Your task to perform on an android device: turn off priority inbox in the gmail app Image 0: 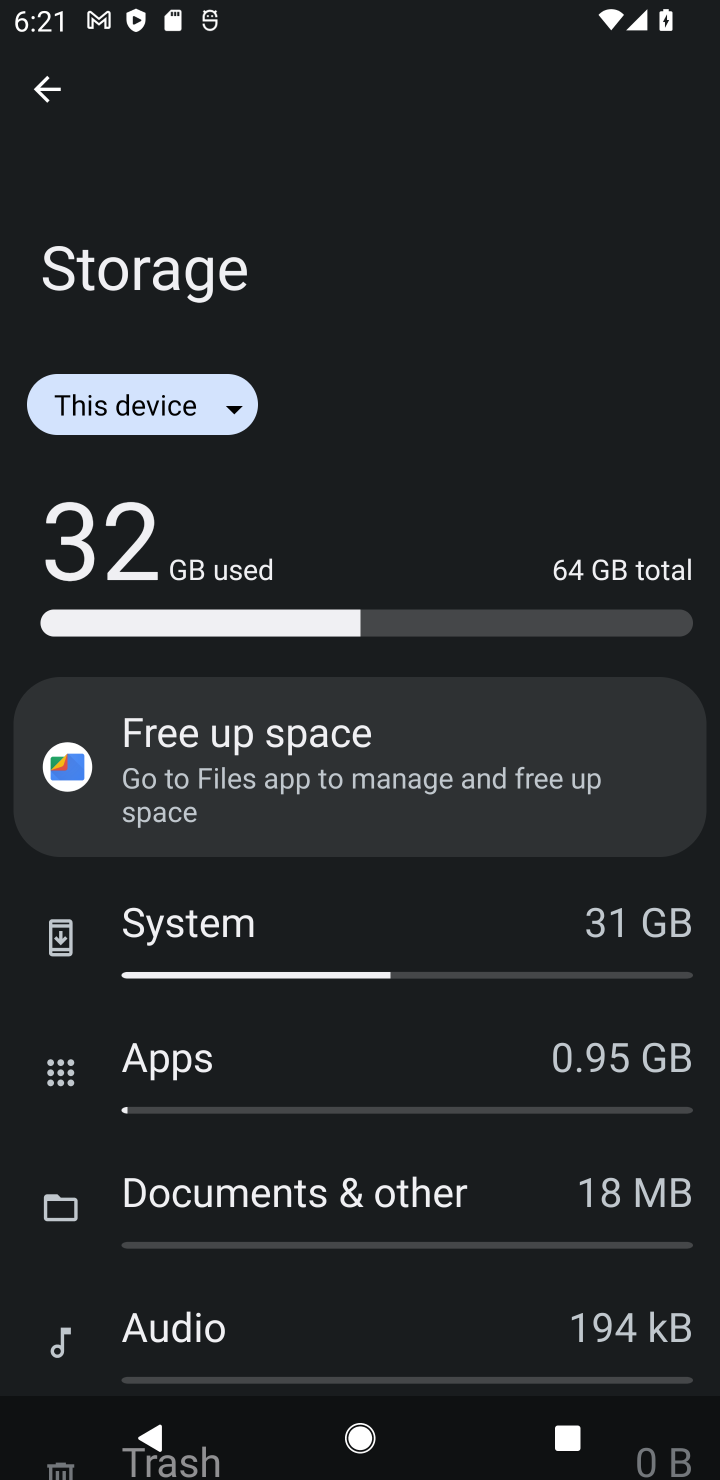
Step 0: press home button
Your task to perform on an android device: turn off priority inbox in the gmail app Image 1: 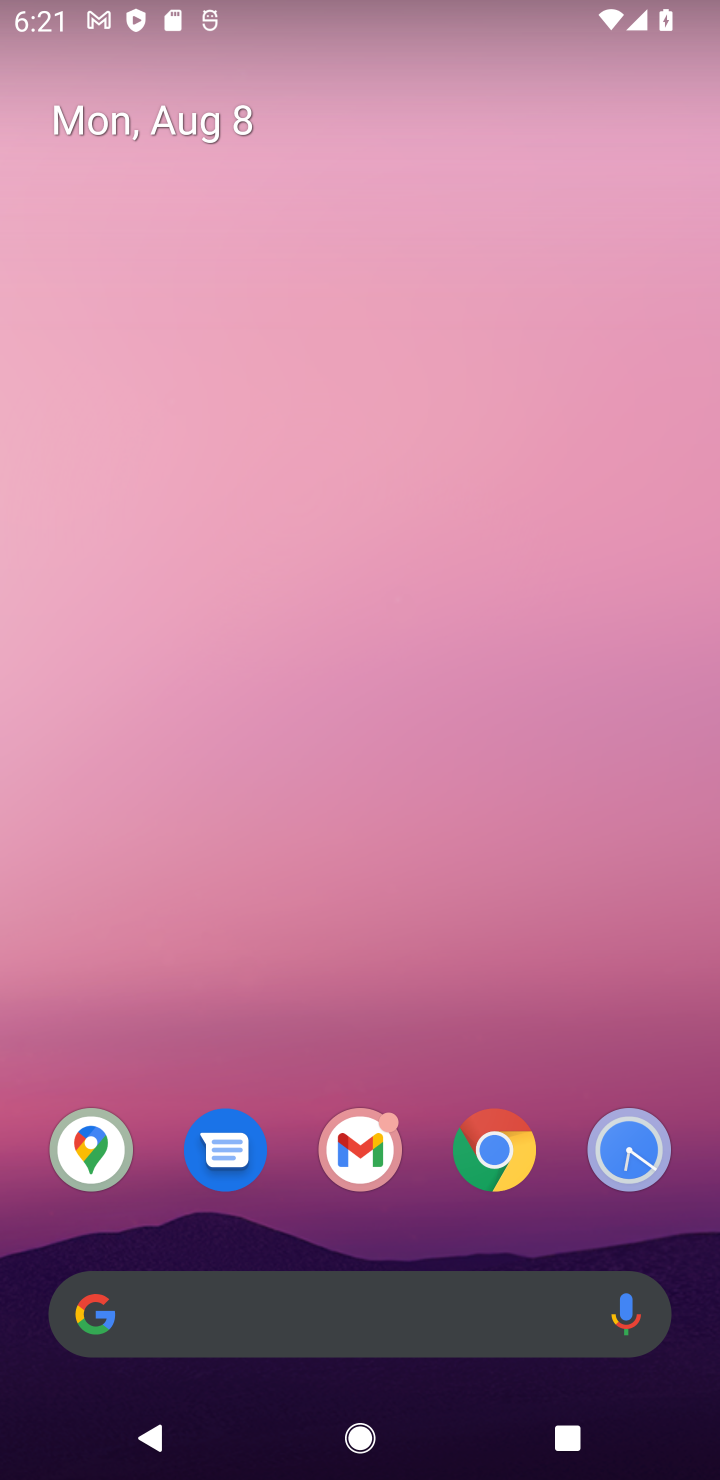
Step 1: click (370, 1183)
Your task to perform on an android device: turn off priority inbox in the gmail app Image 2: 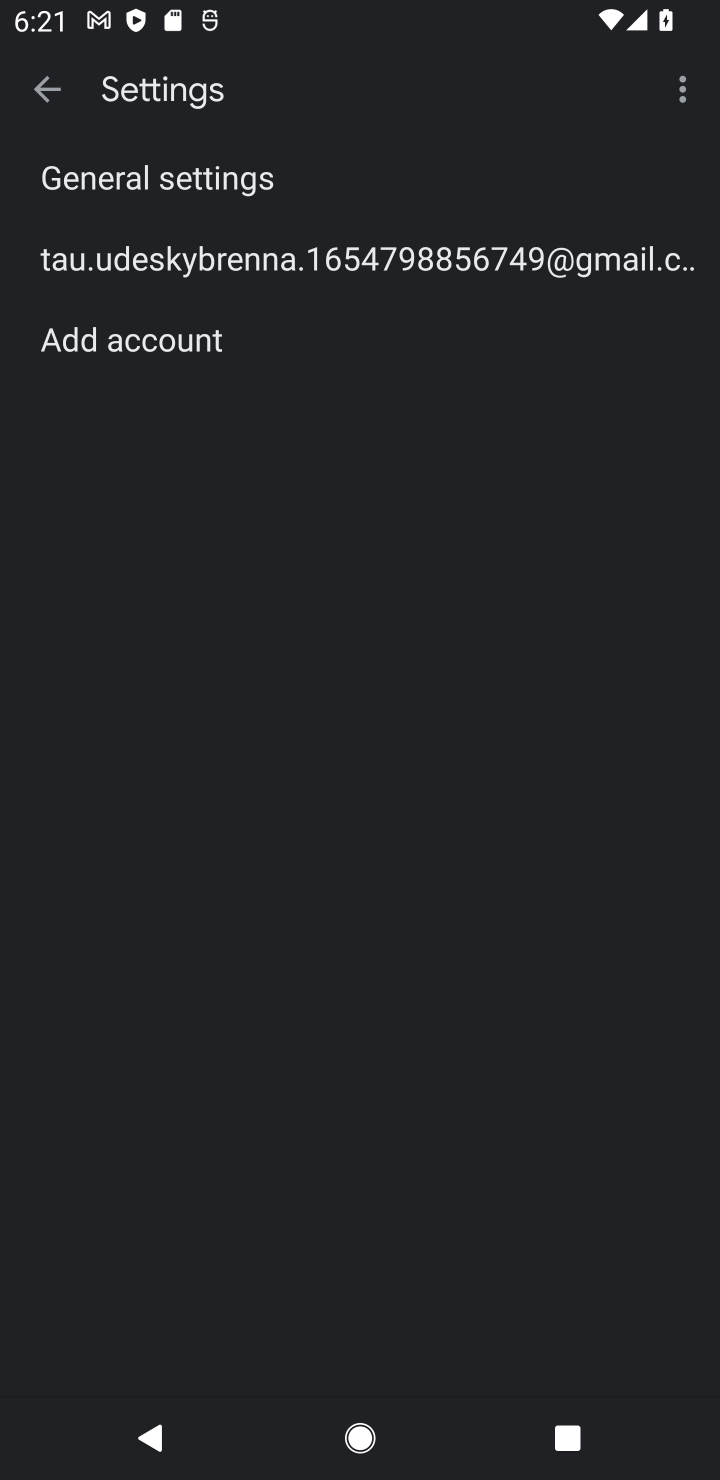
Step 2: task complete